Your task to perform on an android device: set the stopwatch Image 0: 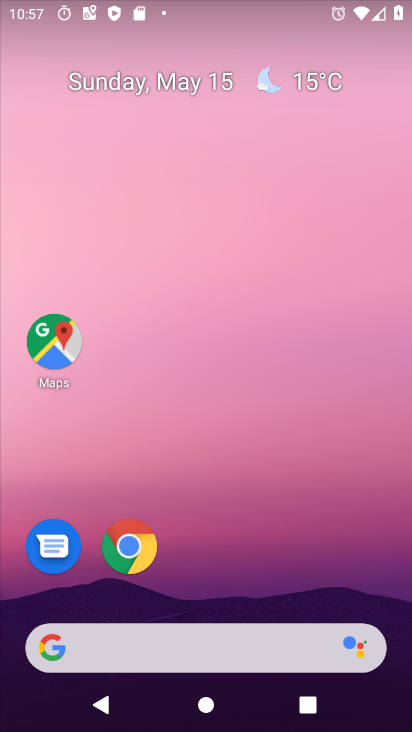
Step 0: drag from (252, 641) to (77, 185)
Your task to perform on an android device: set the stopwatch Image 1: 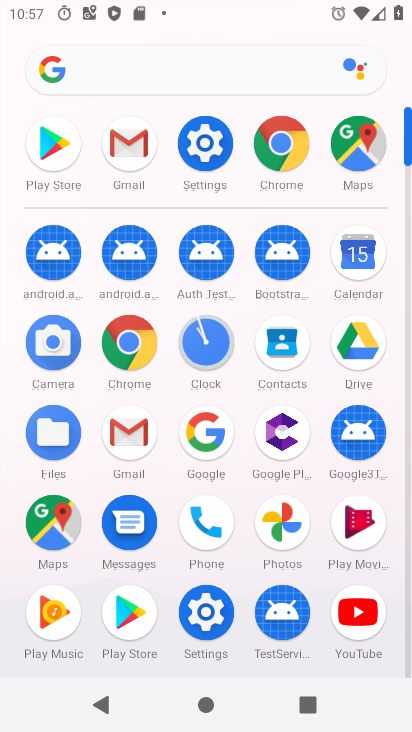
Step 1: click (202, 347)
Your task to perform on an android device: set the stopwatch Image 2: 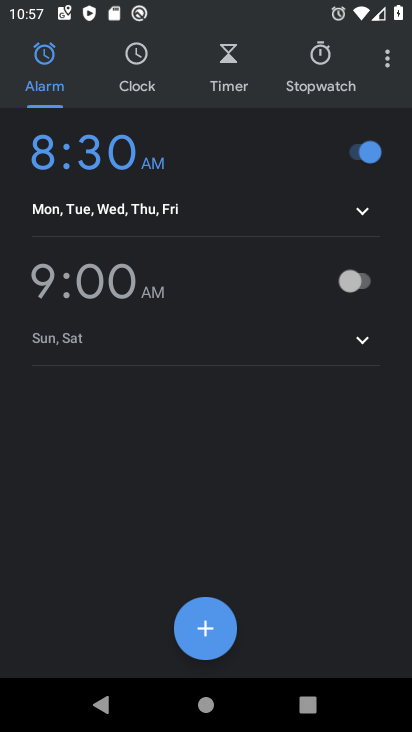
Step 2: click (318, 74)
Your task to perform on an android device: set the stopwatch Image 3: 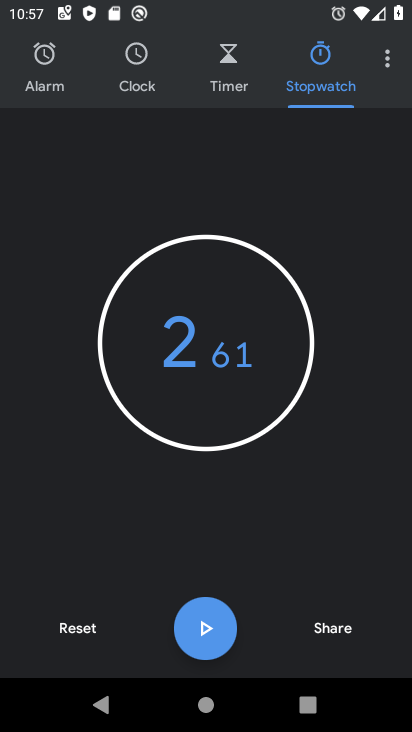
Step 3: click (201, 634)
Your task to perform on an android device: set the stopwatch Image 4: 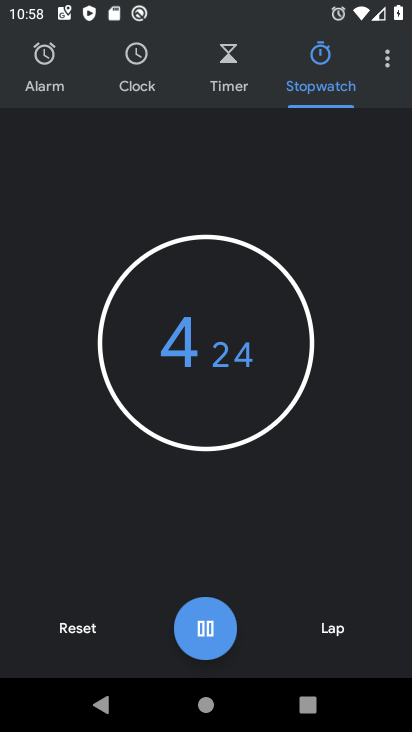
Step 4: click (201, 634)
Your task to perform on an android device: set the stopwatch Image 5: 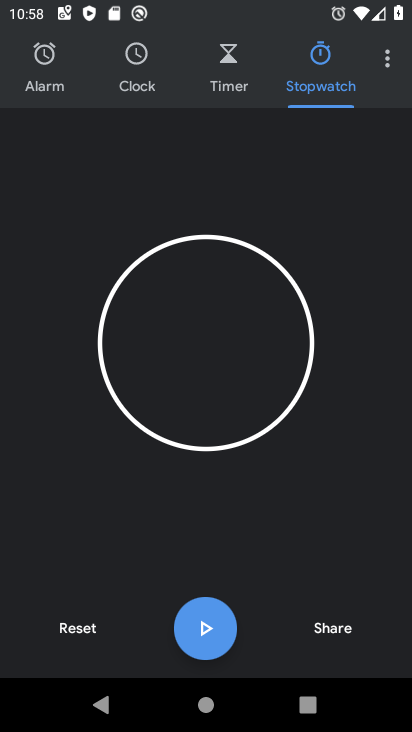
Step 5: task complete